Your task to perform on an android device: Clear all items from cart on amazon. Add macbook air to the cart on amazon Image 0: 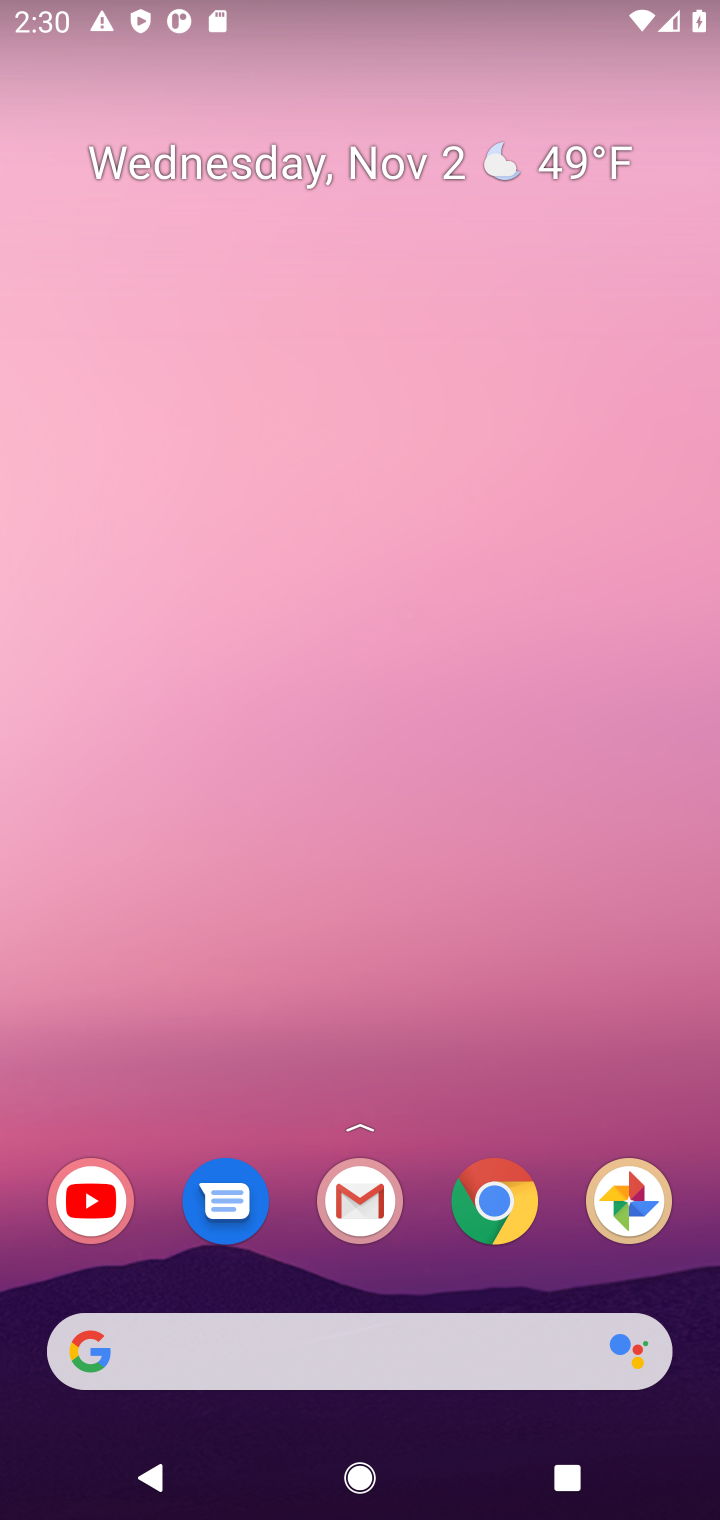
Step 0: click (490, 1213)
Your task to perform on an android device: Clear all items from cart on amazon. Add macbook air to the cart on amazon Image 1: 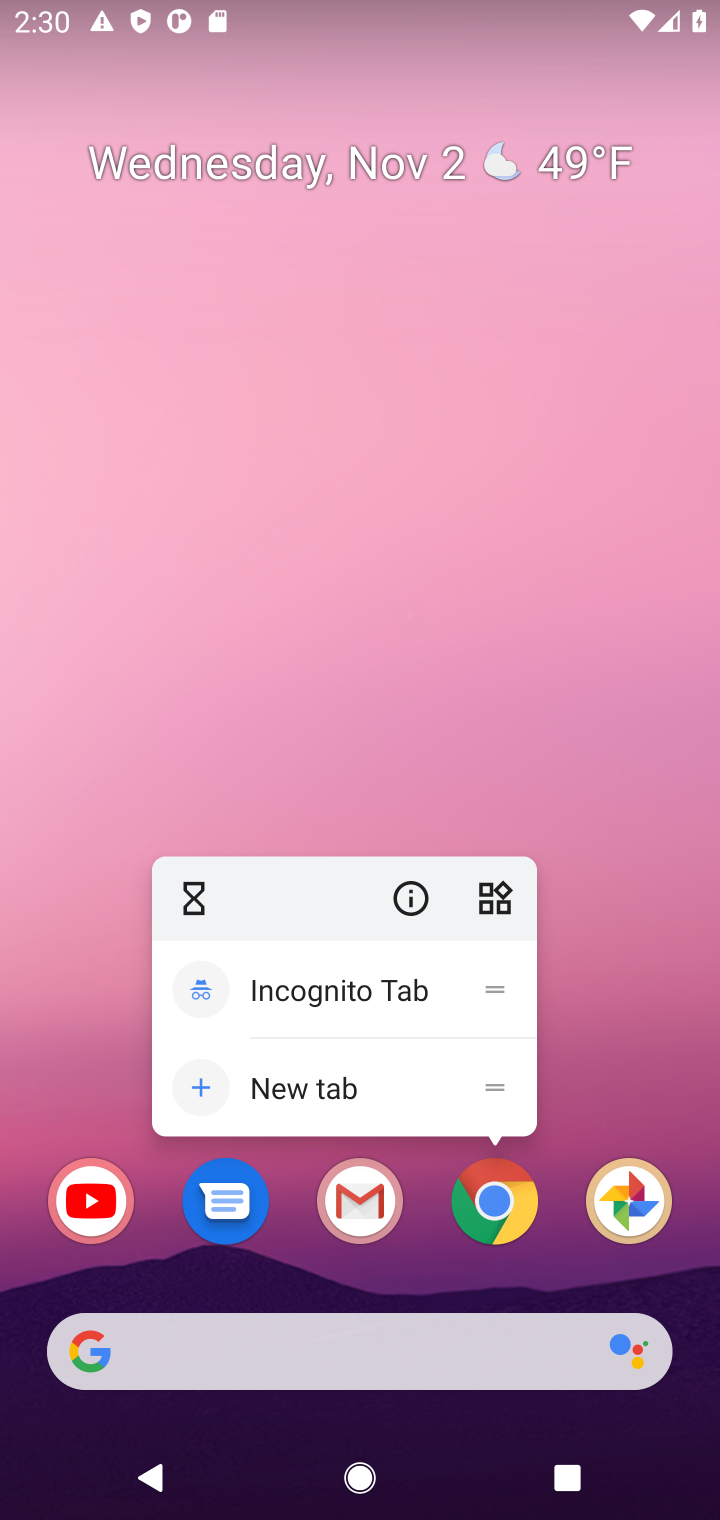
Step 1: click (490, 1217)
Your task to perform on an android device: Clear all items from cart on amazon. Add macbook air to the cart on amazon Image 2: 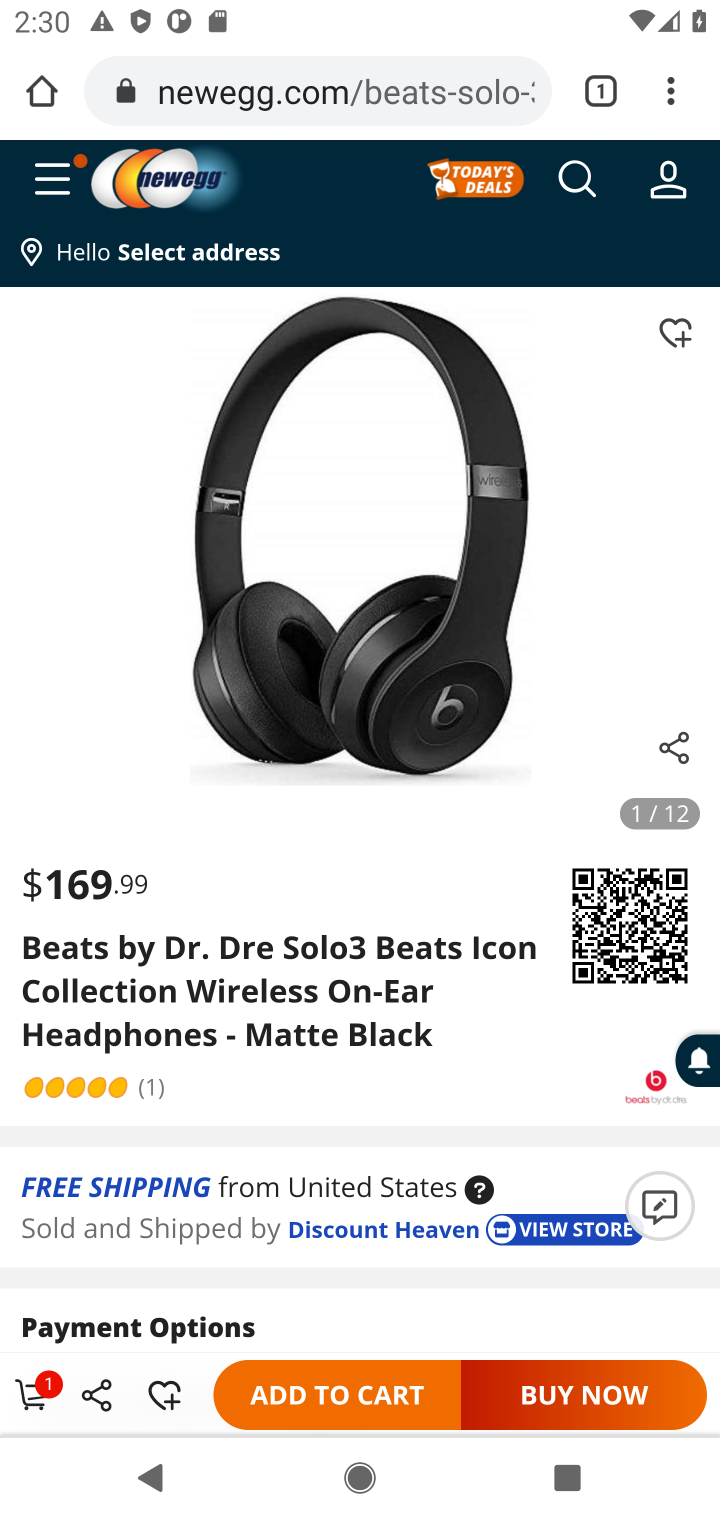
Step 2: click (428, 88)
Your task to perform on an android device: Clear all items from cart on amazon. Add macbook air to the cart on amazon Image 3: 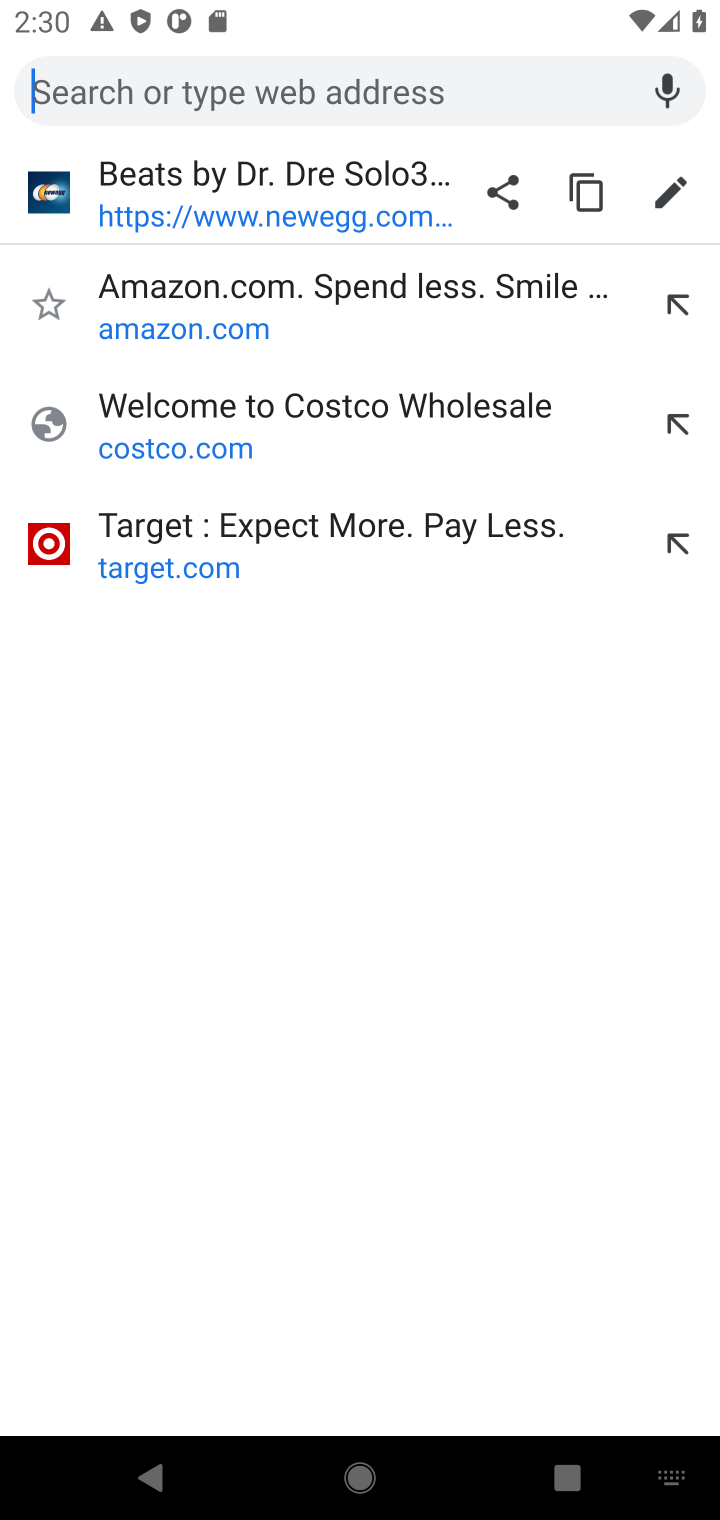
Step 3: click (253, 285)
Your task to perform on an android device: Clear all items from cart on amazon. Add macbook air to the cart on amazon Image 4: 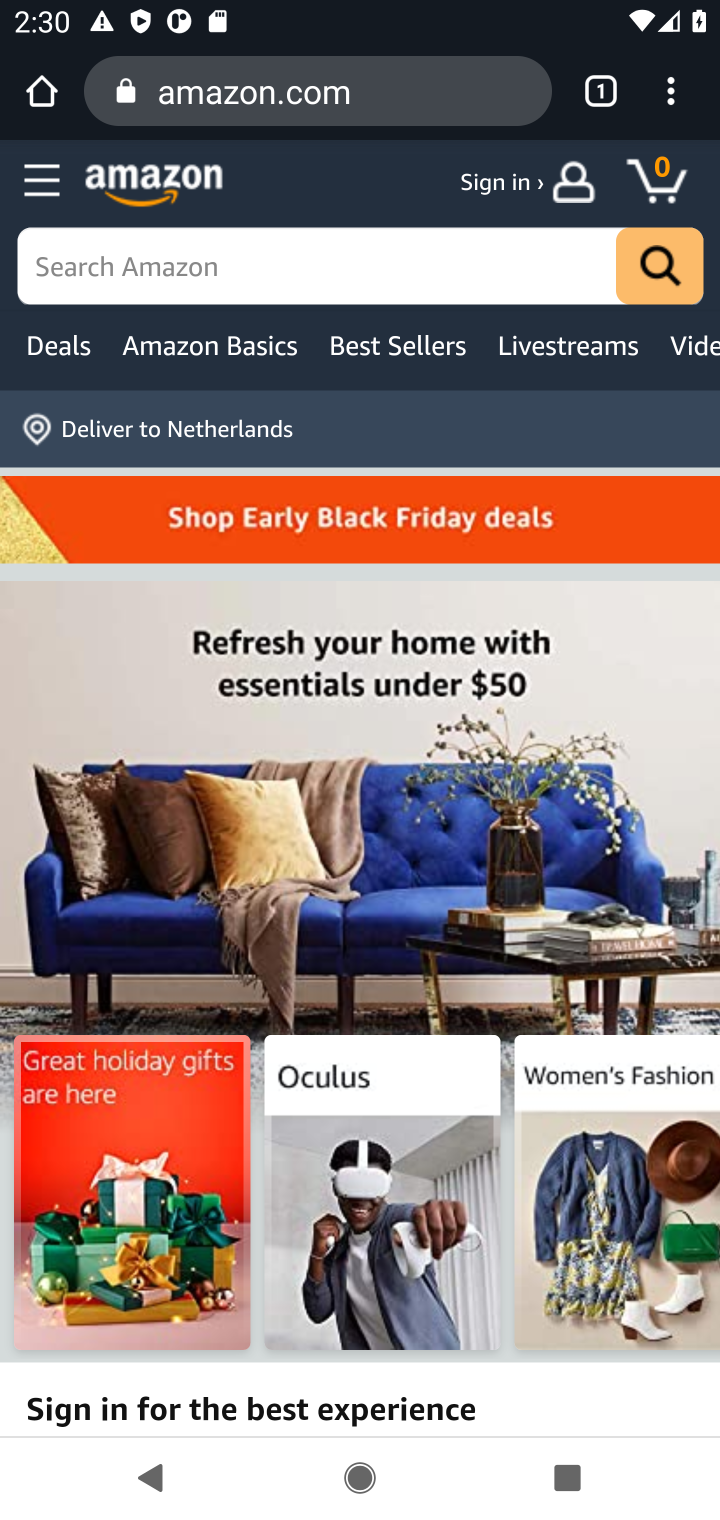
Step 4: click (301, 263)
Your task to perform on an android device: Clear all items from cart on amazon. Add macbook air to the cart on amazon Image 5: 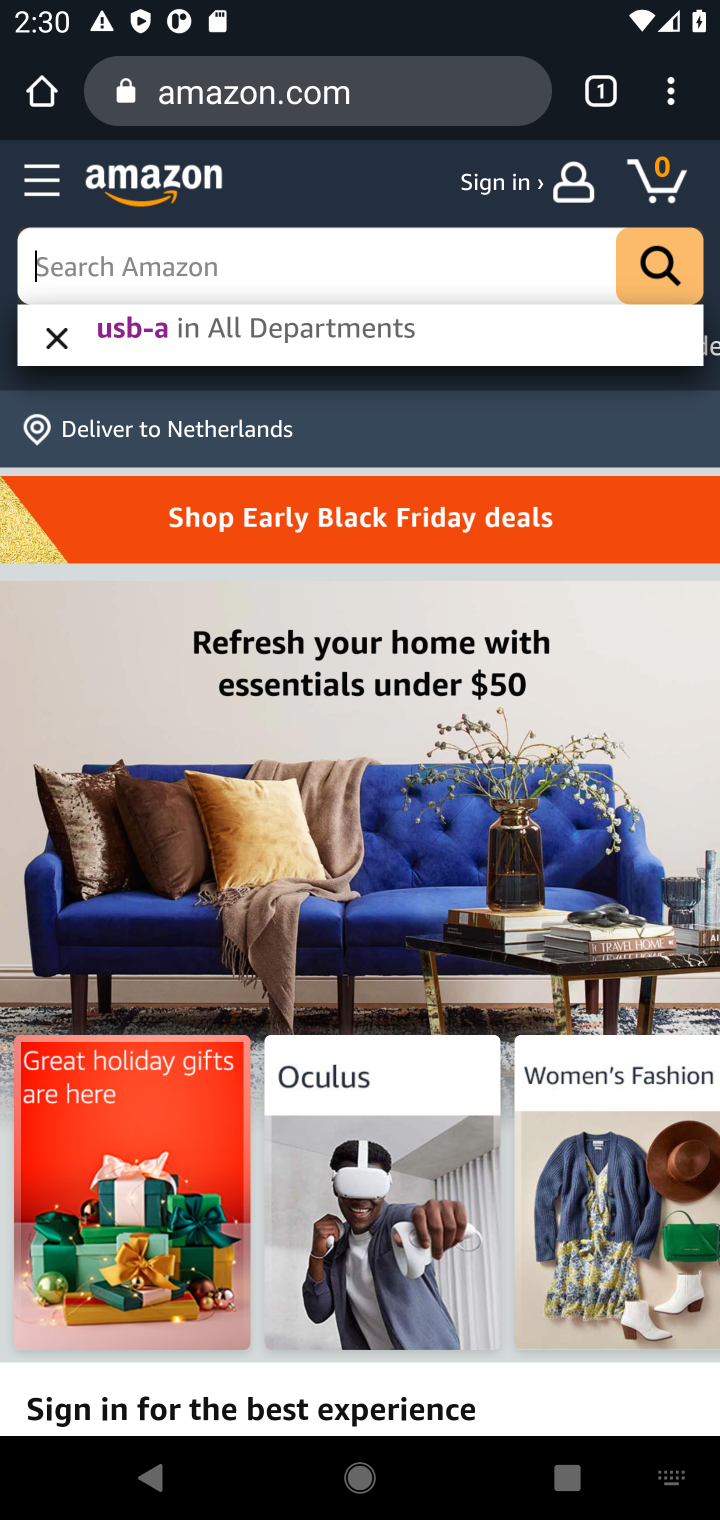
Step 5: type "macbook air"
Your task to perform on an android device: Clear all items from cart on amazon. Add macbook air to the cart on amazon Image 6: 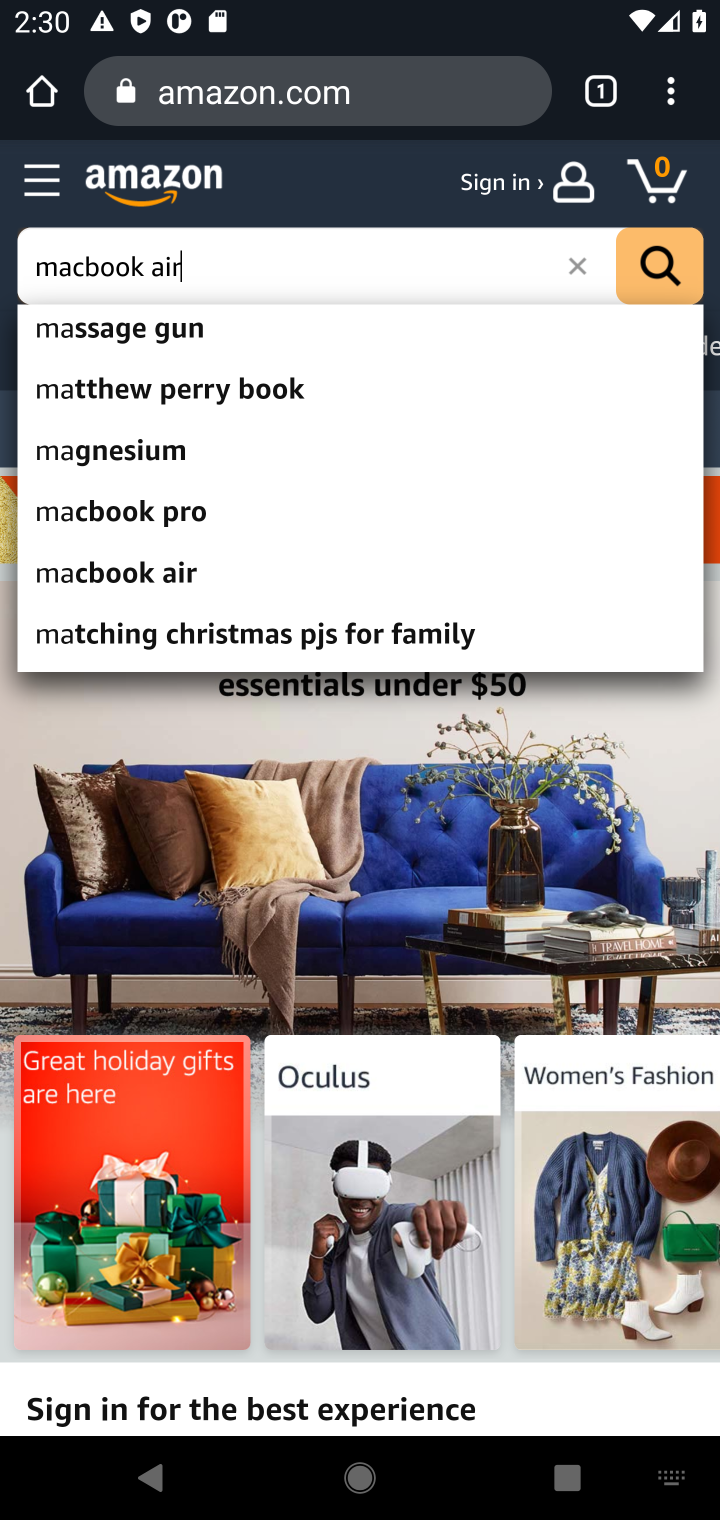
Step 6: press enter
Your task to perform on an android device: Clear all items from cart on amazon. Add macbook air to the cart on amazon Image 7: 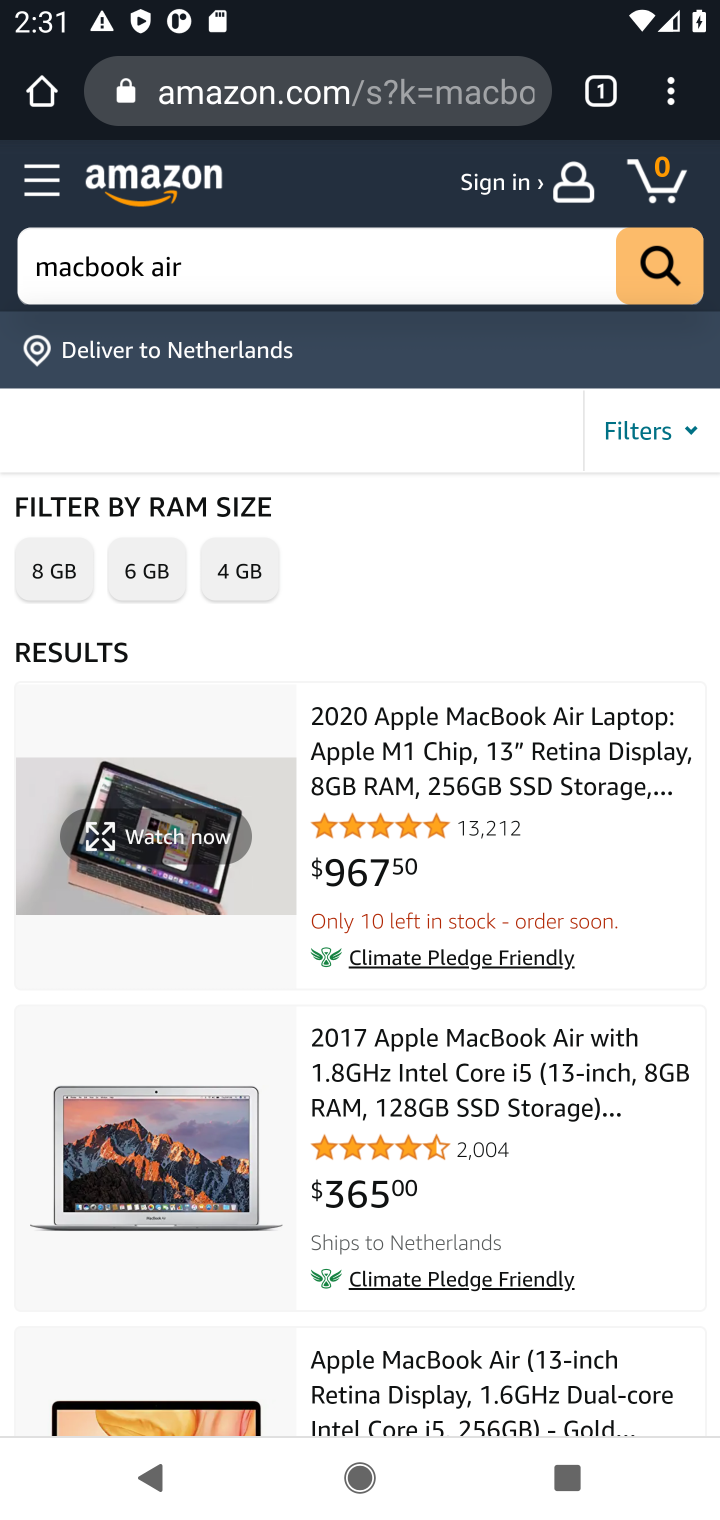
Step 7: click (513, 760)
Your task to perform on an android device: Clear all items from cart on amazon. Add macbook air to the cart on amazon Image 8: 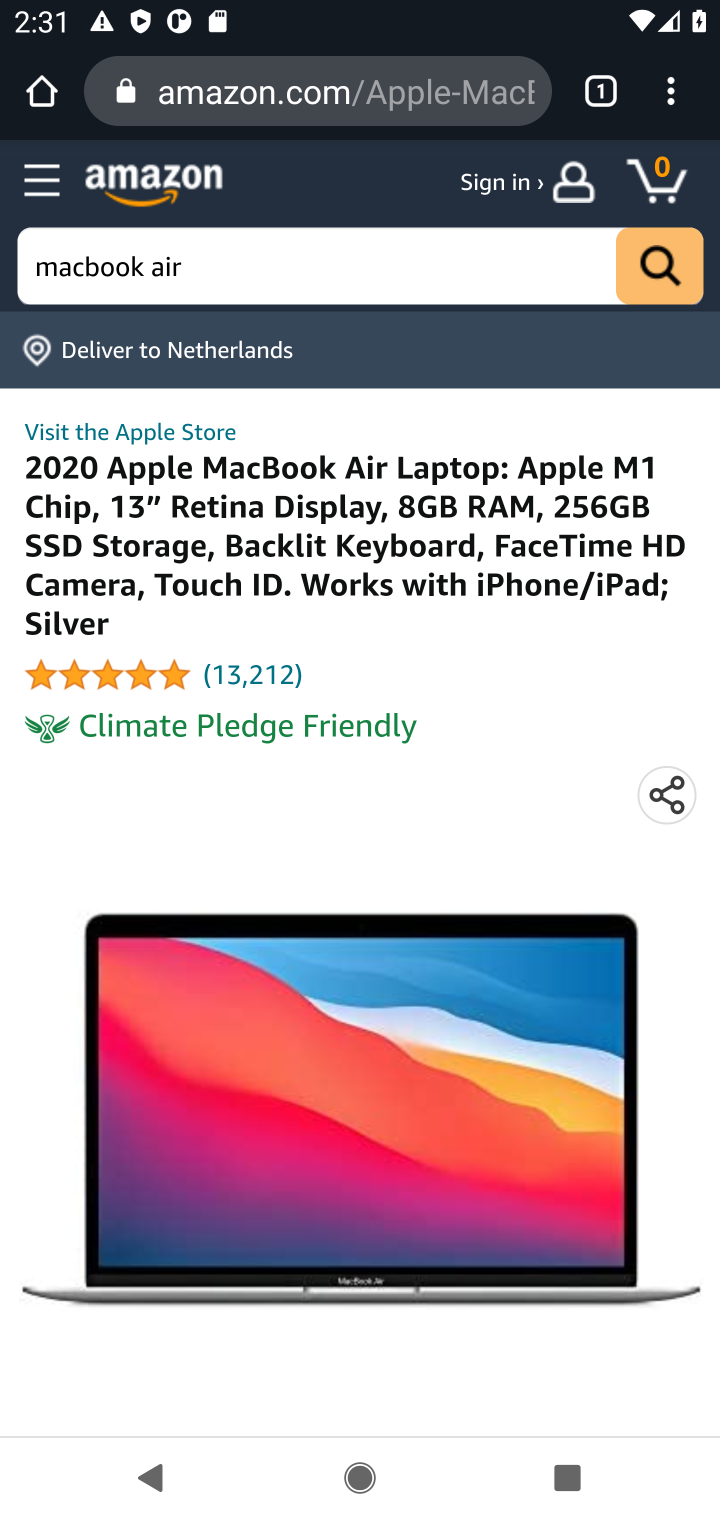
Step 8: task complete